Your task to perform on an android device: Check the weather Image 0: 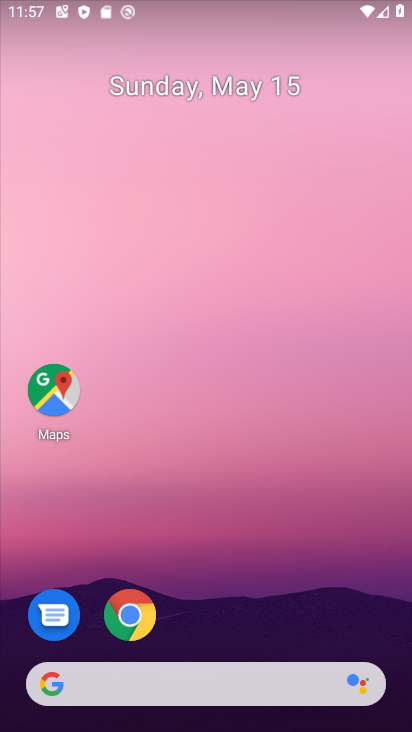
Step 0: drag from (326, 615) to (310, 212)
Your task to perform on an android device: Check the weather Image 1: 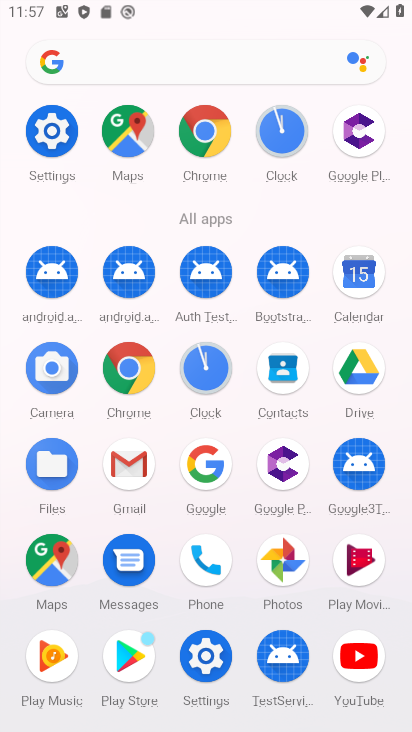
Step 1: click (122, 386)
Your task to perform on an android device: Check the weather Image 2: 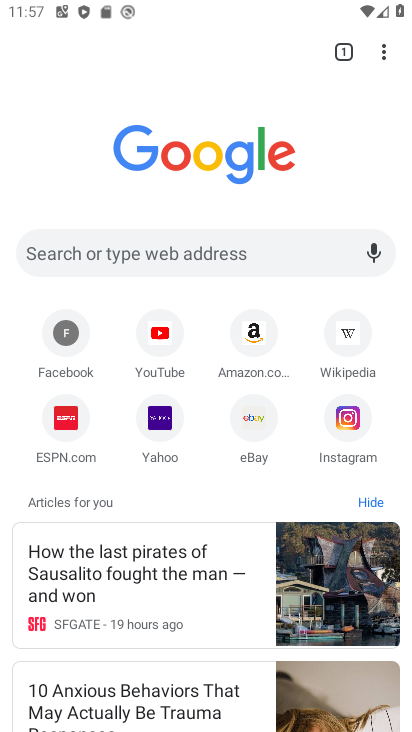
Step 2: click (128, 247)
Your task to perform on an android device: Check the weather Image 3: 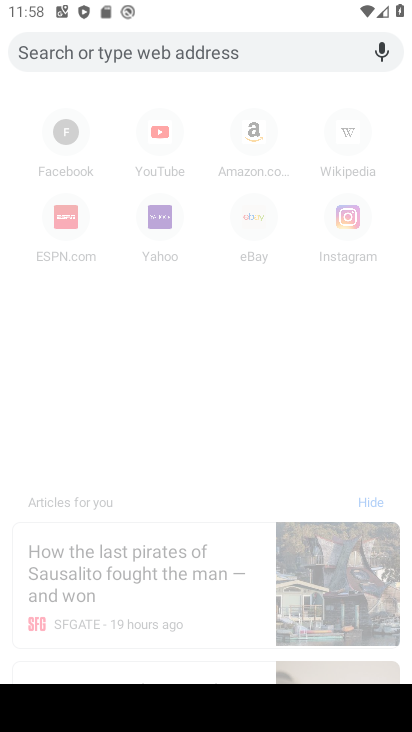
Step 3: type "check the weather"
Your task to perform on an android device: Check the weather Image 4: 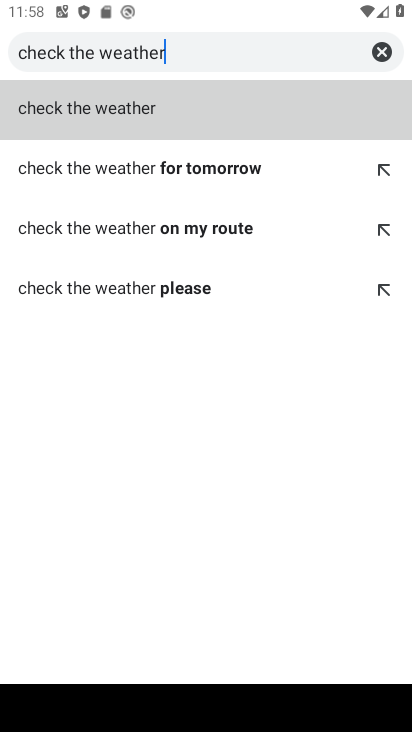
Step 4: click (80, 108)
Your task to perform on an android device: Check the weather Image 5: 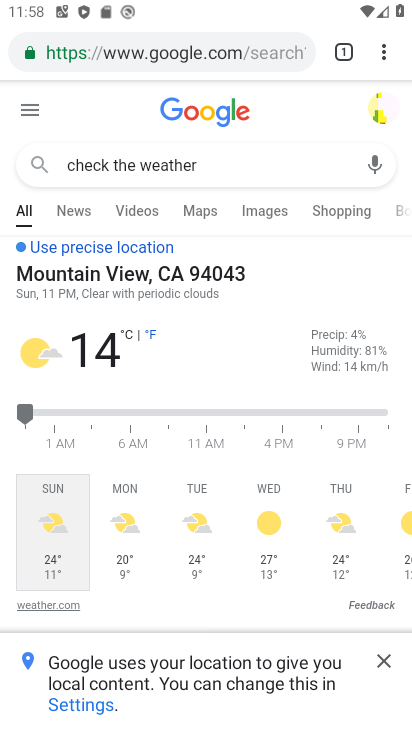
Step 5: click (384, 665)
Your task to perform on an android device: Check the weather Image 6: 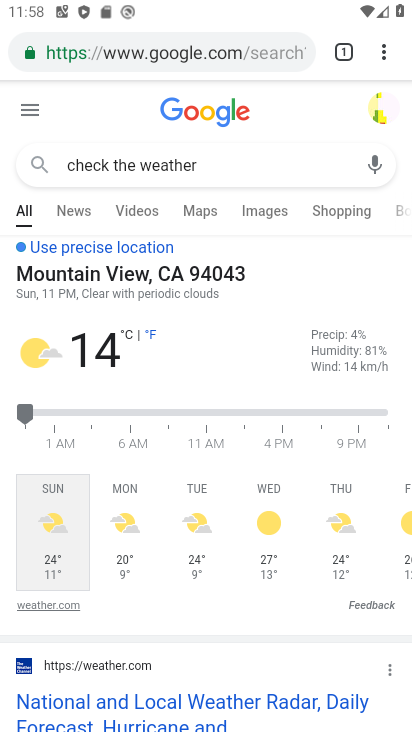
Step 6: task complete